Your task to perform on an android device: What's the weather? Image 0: 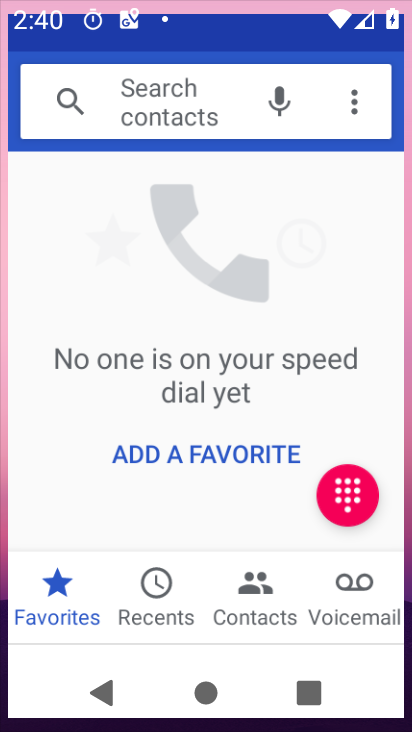
Step 0: drag from (350, 485) to (409, 146)
Your task to perform on an android device: What's the weather? Image 1: 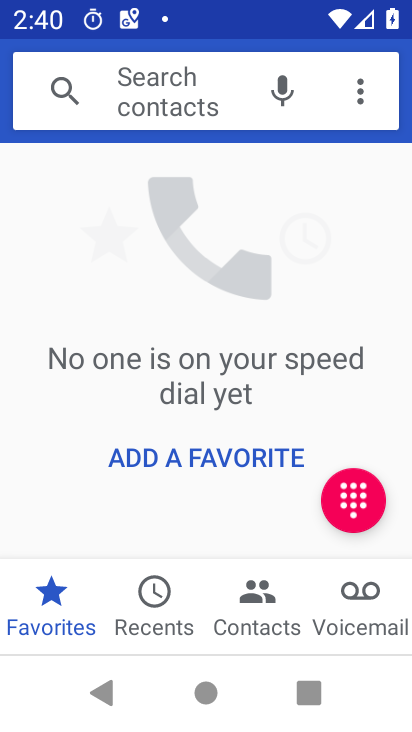
Step 1: press home button
Your task to perform on an android device: What's the weather? Image 2: 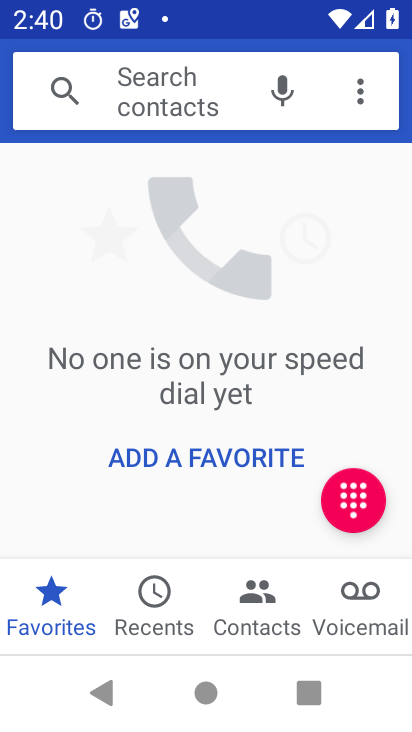
Step 2: drag from (409, 146) to (411, 532)
Your task to perform on an android device: What's the weather? Image 3: 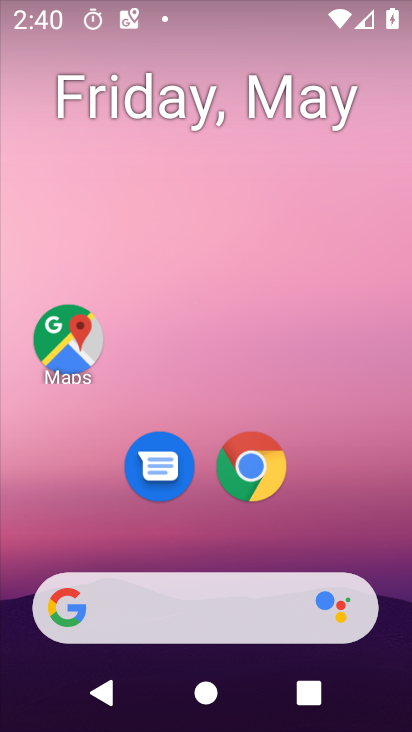
Step 3: drag from (364, 552) to (407, 65)
Your task to perform on an android device: What's the weather? Image 4: 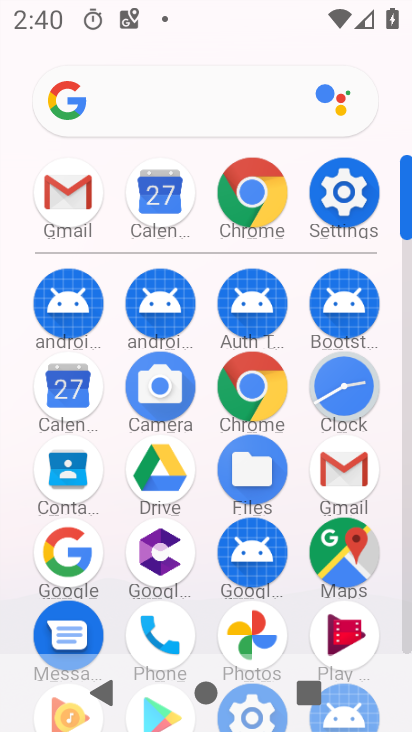
Step 4: click (77, 103)
Your task to perform on an android device: What's the weather? Image 5: 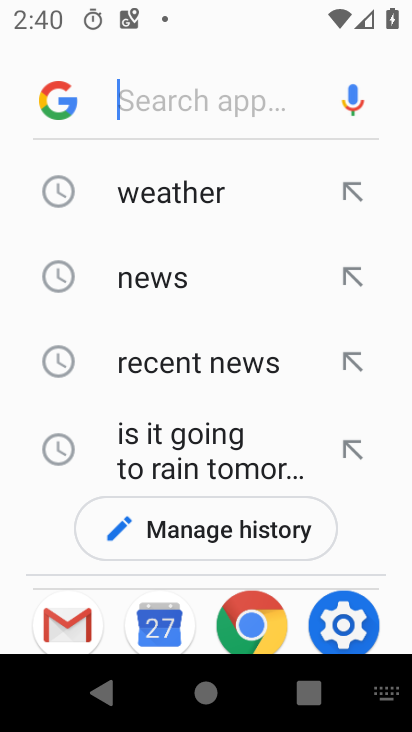
Step 5: click (77, 103)
Your task to perform on an android device: What's the weather? Image 6: 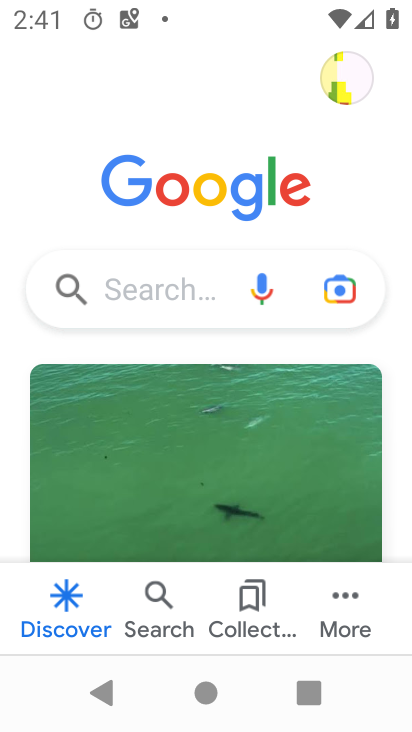
Step 6: drag from (309, 487) to (375, 117)
Your task to perform on an android device: What's the weather? Image 7: 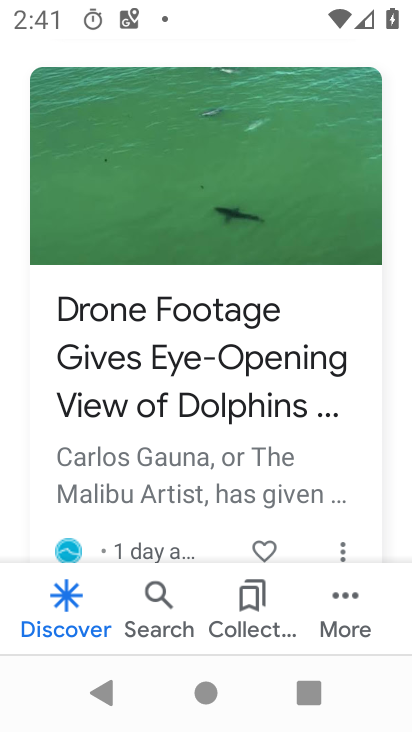
Step 7: drag from (360, 418) to (395, 58)
Your task to perform on an android device: What's the weather? Image 8: 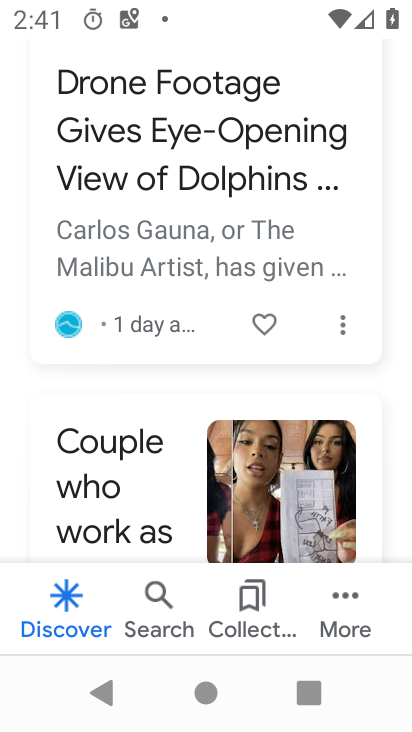
Step 8: drag from (340, 282) to (310, 602)
Your task to perform on an android device: What's the weather? Image 9: 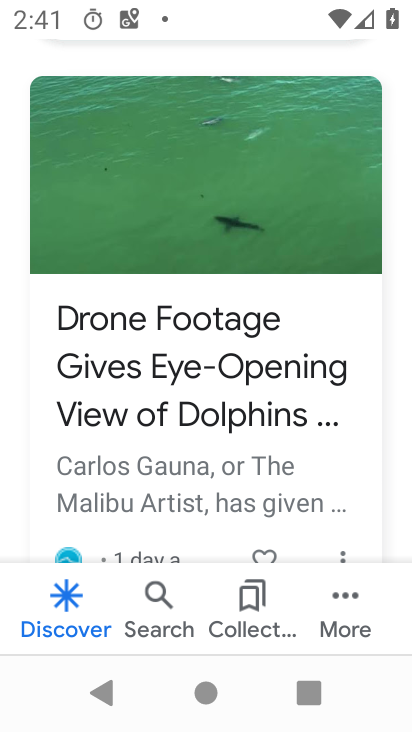
Step 9: drag from (266, 210) to (249, 575)
Your task to perform on an android device: What's the weather? Image 10: 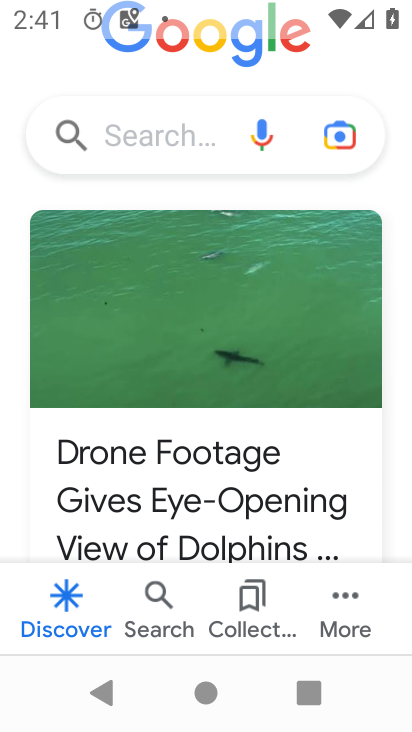
Step 10: drag from (273, 203) to (250, 653)
Your task to perform on an android device: What's the weather? Image 11: 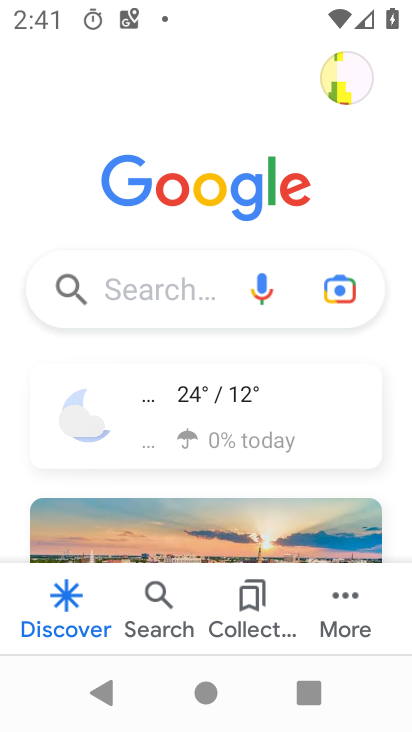
Step 11: click (241, 422)
Your task to perform on an android device: What's the weather? Image 12: 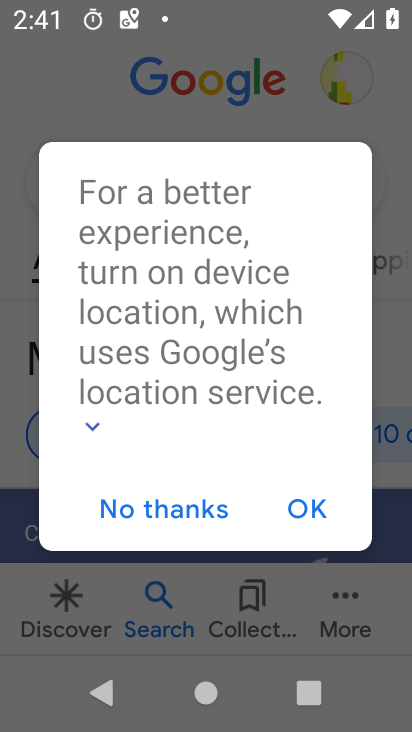
Step 12: click (154, 517)
Your task to perform on an android device: What's the weather? Image 13: 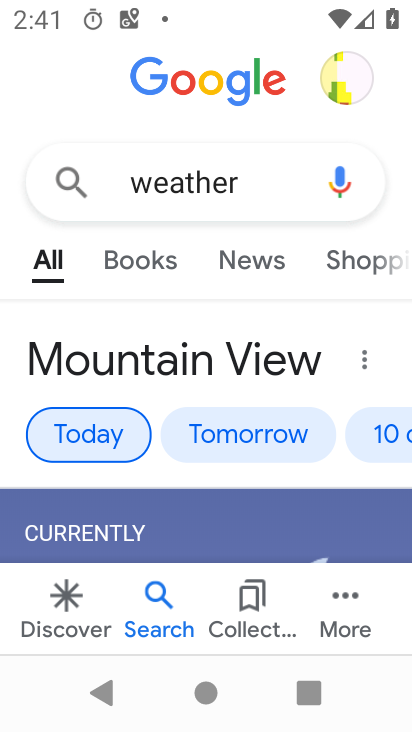
Step 13: task complete